Your task to perform on an android device: Open Google Chrome and click the shortcut for Amazon.com Image 0: 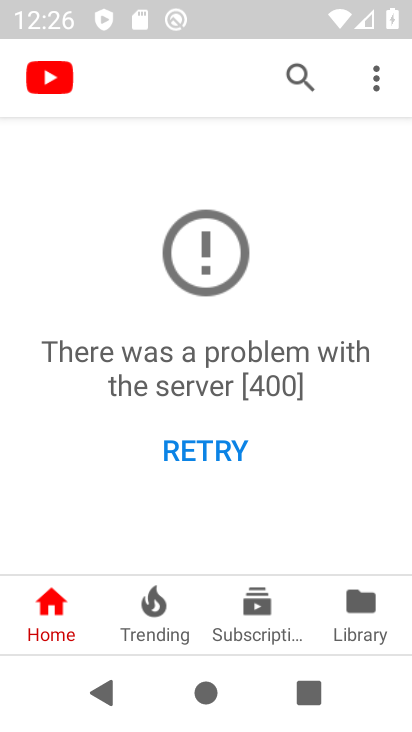
Step 0: press home button
Your task to perform on an android device: Open Google Chrome and click the shortcut for Amazon.com Image 1: 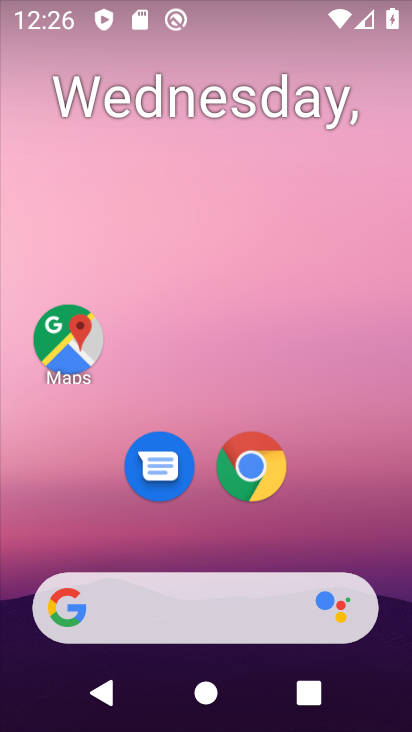
Step 1: click (253, 465)
Your task to perform on an android device: Open Google Chrome and click the shortcut for Amazon.com Image 2: 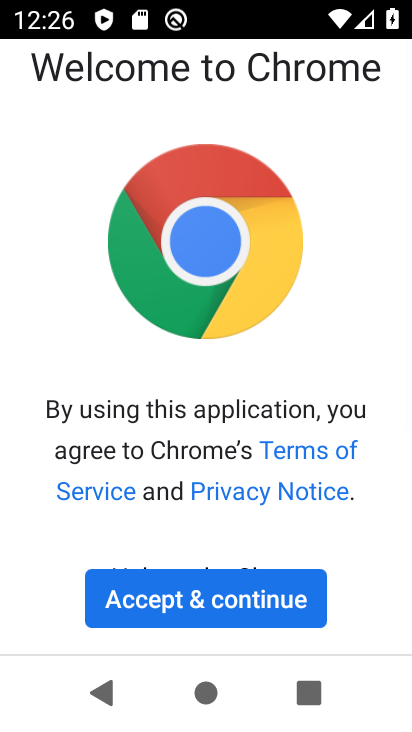
Step 2: click (242, 597)
Your task to perform on an android device: Open Google Chrome and click the shortcut for Amazon.com Image 3: 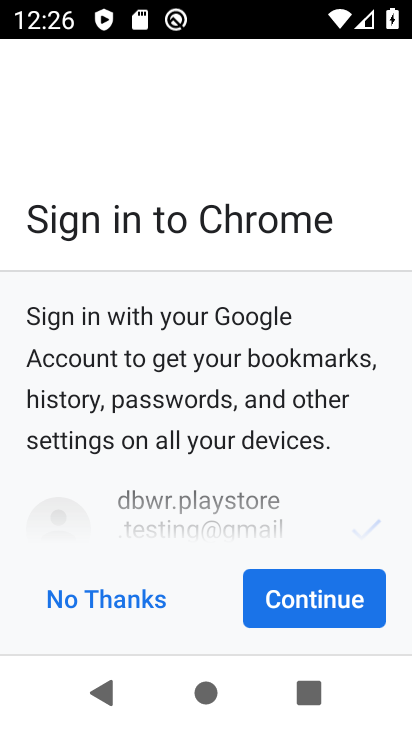
Step 3: click (284, 593)
Your task to perform on an android device: Open Google Chrome and click the shortcut for Amazon.com Image 4: 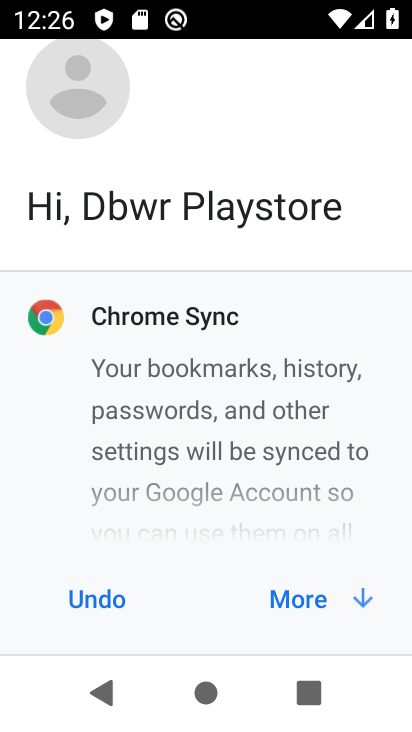
Step 4: click (284, 593)
Your task to perform on an android device: Open Google Chrome and click the shortcut for Amazon.com Image 5: 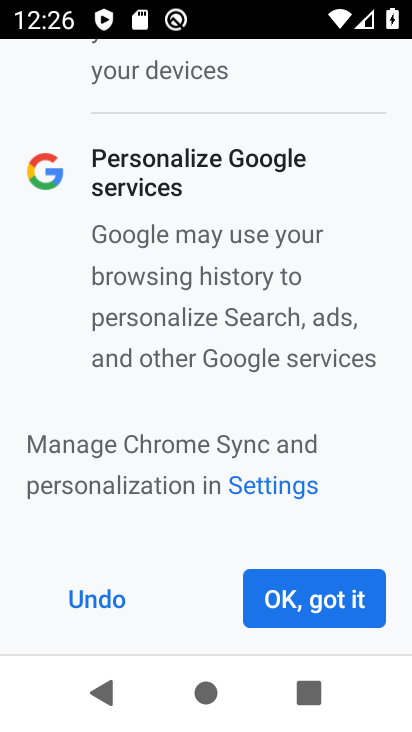
Step 5: click (284, 593)
Your task to perform on an android device: Open Google Chrome and click the shortcut for Amazon.com Image 6: 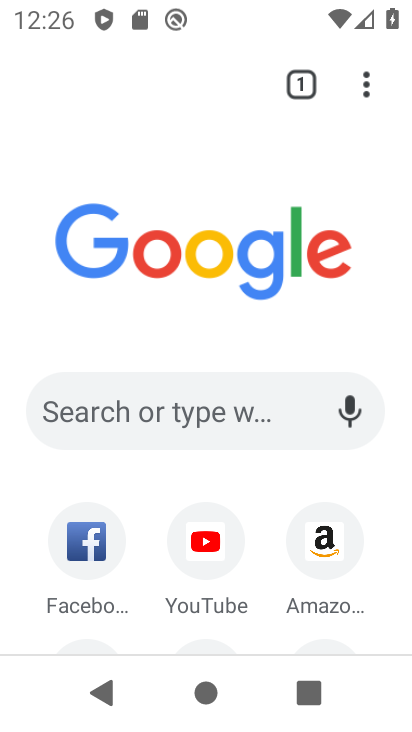
Step 6: click (324, 541)
Your task to perform on an android device: Open Google Chrome and click the shortcut for Amazon.com Image 7: 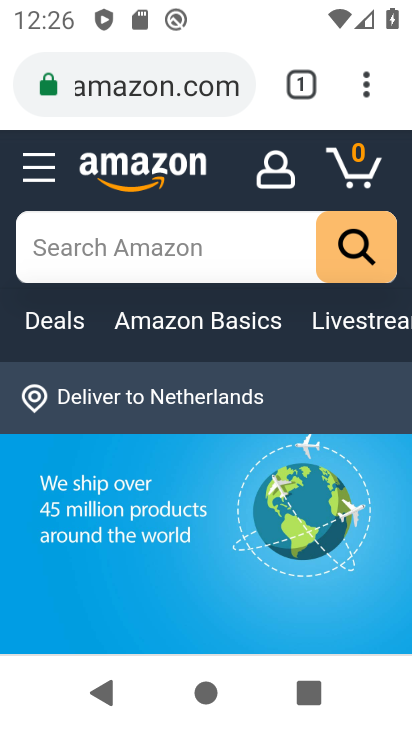
Step 7: click (367, 86)
Your task to perform on an android device: Open Google Chrome and click the shortcut for Amazon.com Image 8: 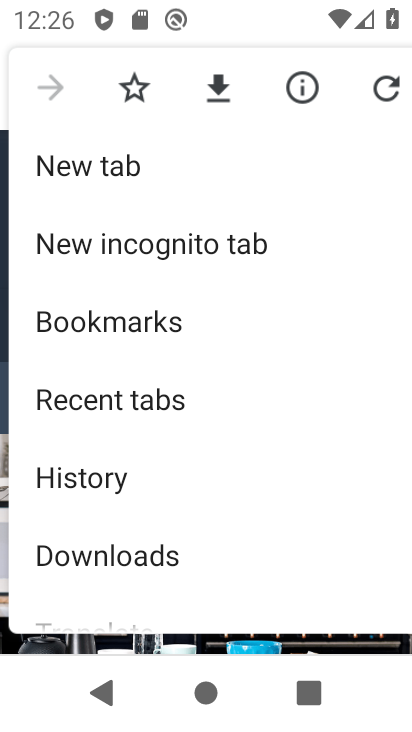
Step 8: drag from (160, 493) to (178, 374)
Your task to perform on an android device: Open Google Chrome and click the shortcut for Amazon.com Image 9: 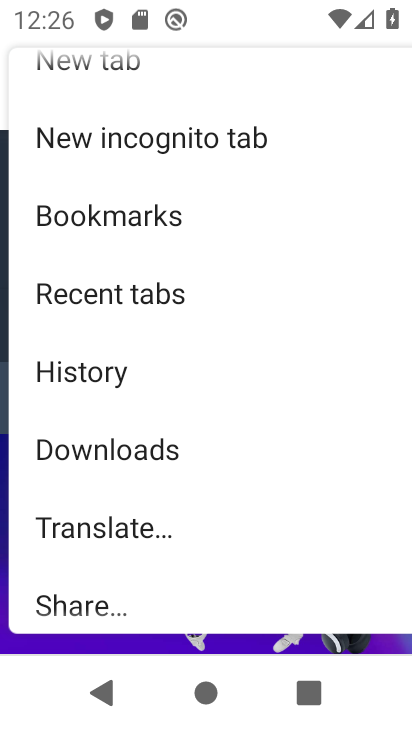
Step 9: drag from (146, 486) to (196, 405)
Your task to perform on an android device: Open Google Chrome and click the shortcut for Amazon.com Image 10: 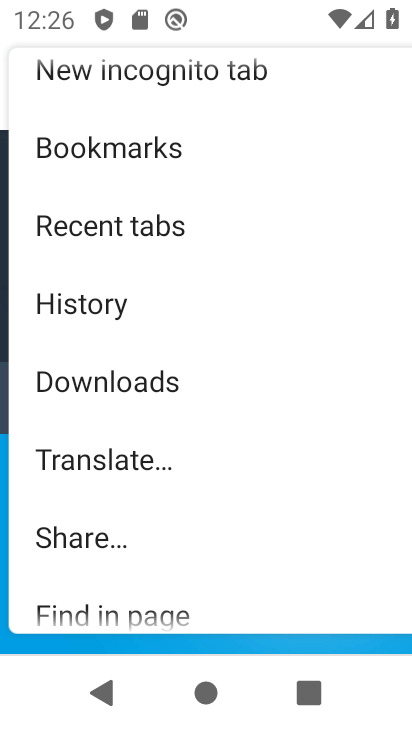
Step 10: drag from (161, 498) to (234, 375)
Your task to perform on an android device: Open Google Chrome and click the shortcut for Amazon.com Image 11: 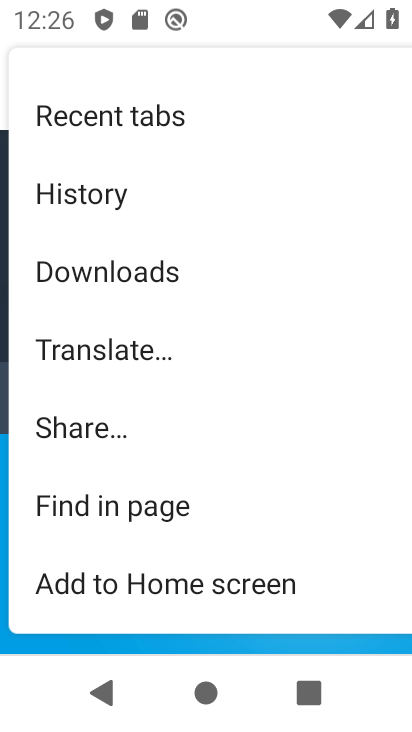
Step 11: drag from (154, 543) to (255, 433)
Your task to perform on an android device: Open Google Chrome and click the shortcut for Amazon.com Image 12: 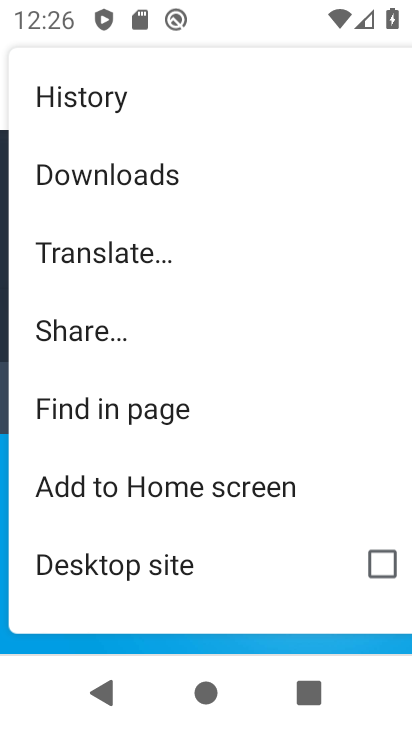
Step 12: click (284, 489)
Your task to perform on an android device: Open Google Chrome and click the shortcut for Amazon.com Image 13: 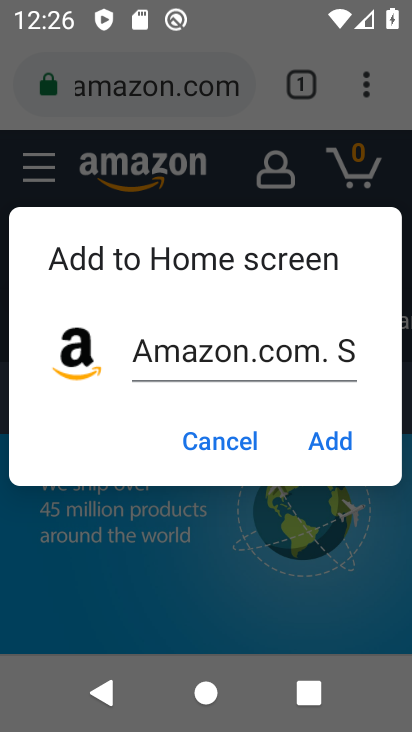
Step 13: click (329, 443)
Your task to perform on an android device: Open Google Chrome and click the shortcut for Amazon.com Image 14: 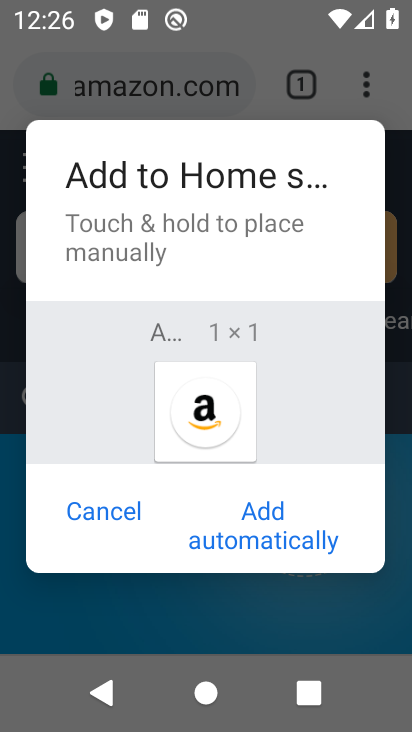
Step 14: click (279, 501)
Your task to perform on an android device: Open Google Chrome and click the shortcut for Amazon.com Image 15: 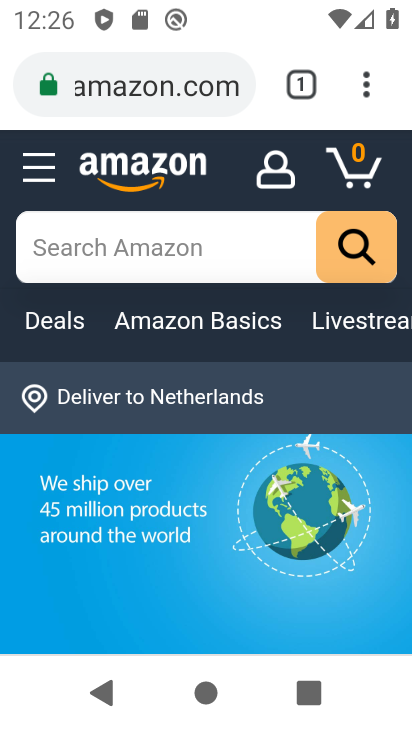
Step 15: task complete